Your task to perform on an android device: turn off translation in the chrome app Image 0: 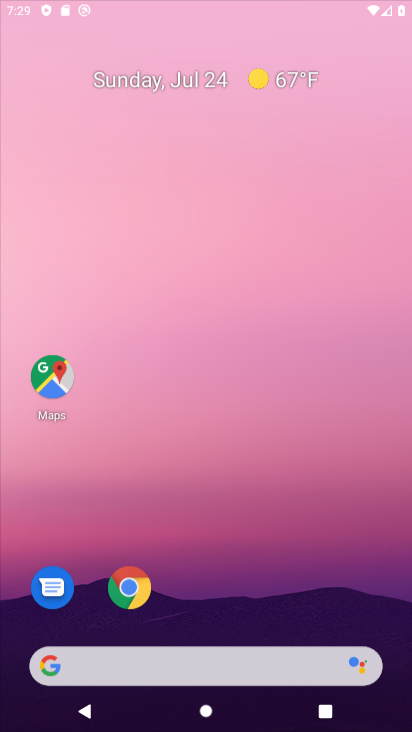
Step 0: click (278, 206)
Your task to perform on an android device: turn off translation in the chrome app Image 1: 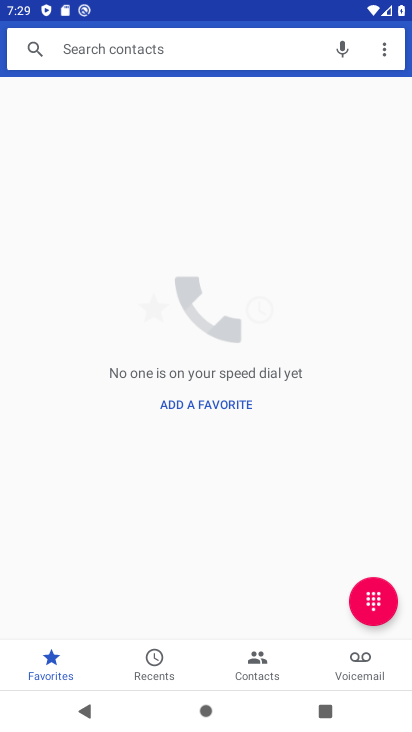
Step 1: press home button
Your task to perform on an android device: turn off translation in the chrome app Image 2: 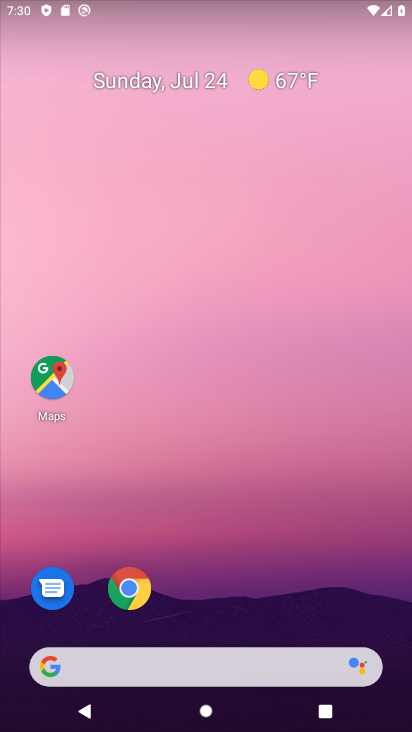
Step 2: click (126, 584)
Your task to perform on an android device: turn off translation in the chrome app Image 3: 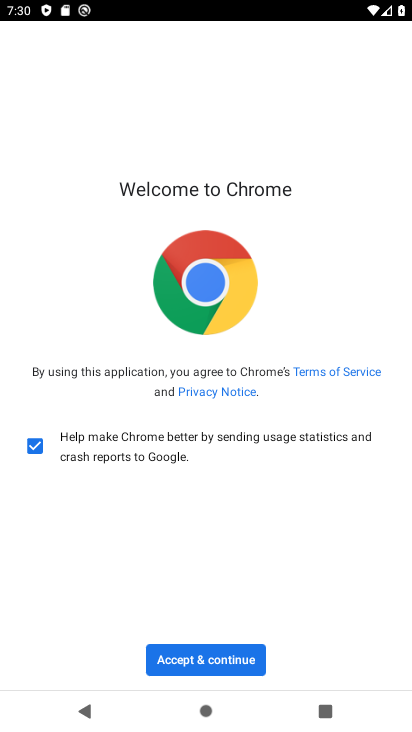
Step 3: click (208, 653)
Your task to perform on an android device: turn off translation in the chrome app Image 4: 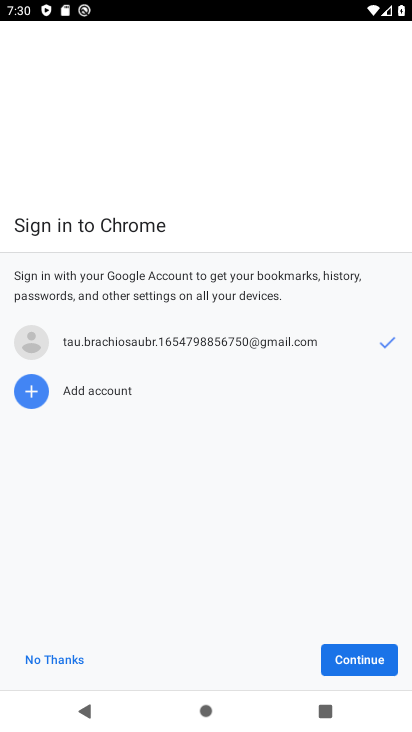
Step 4: click (360, 655)
Your task to perform on an android device: turn off translation in the chrome app Image 5: 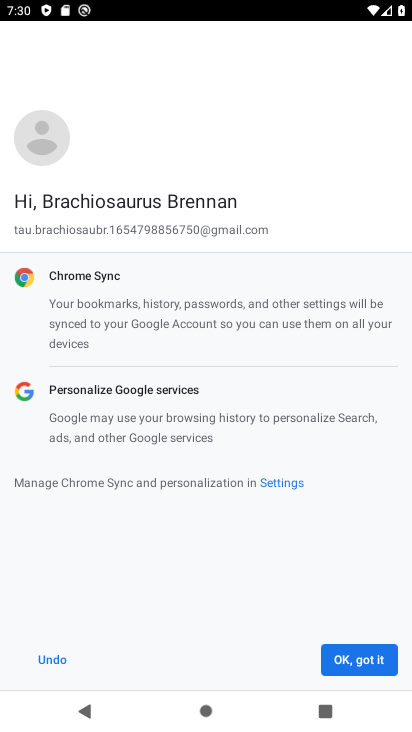
Step 5: click (360, 655)
Your task to perform on an android device: turn off translation in the chrome app Image 6: 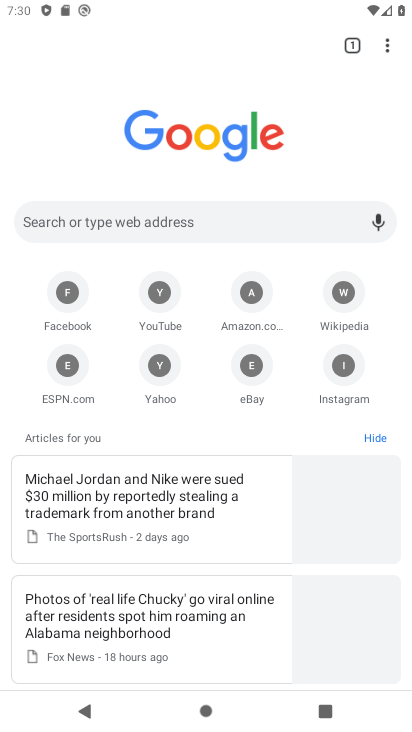
Step 6: click (395, 41)
Your task to perform on an android device: turn off translation in the chrome app Image 7: 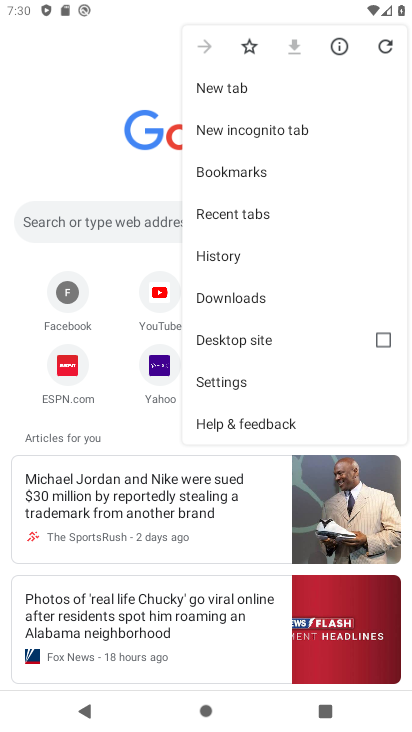
Step 7: click (255, 386)
Your task to perform on an android device: turn off translation in the chrome app Image 8: 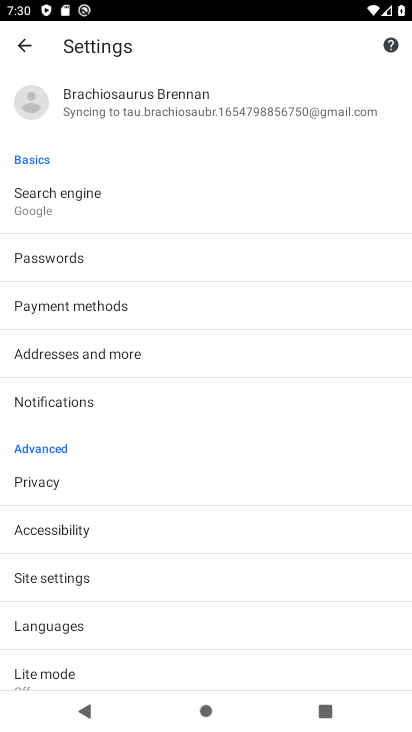
Step 8: click (93, 633)
Your task to perform on an android device: turn off translation in the chrome app Image 9: 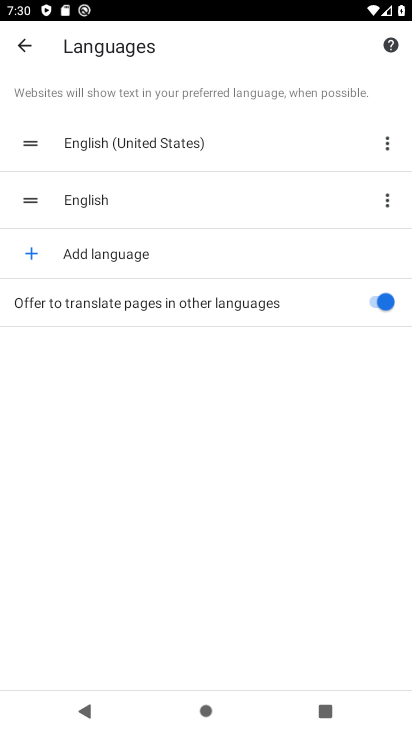
Step 9: click (384, 308)
Your task to perform on an android device: turn off translation in the chrome app Image 10: 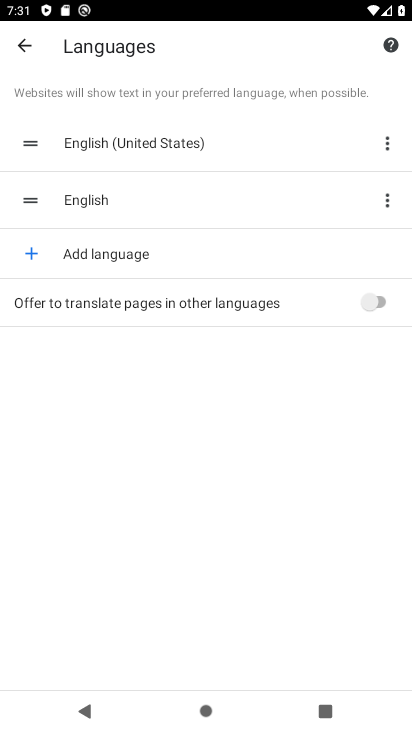
Step 10: task complete